Your task to perform on an android device: toggle sleep mode Image 0: 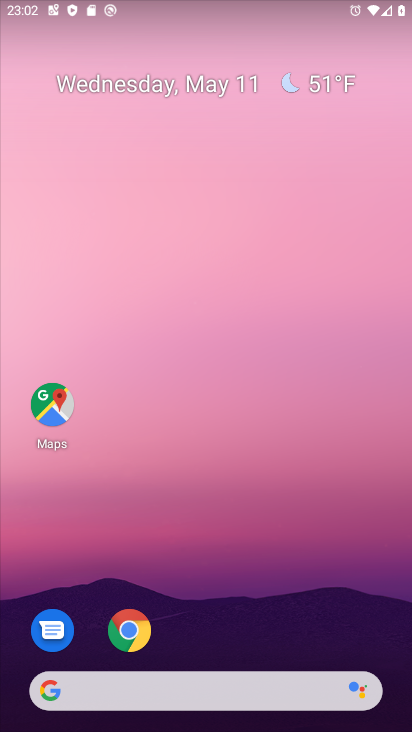
Step 0: drag from (207, 691) to (210, 129)
Your task to perform on an android device: toggle sleep mode Image 1: 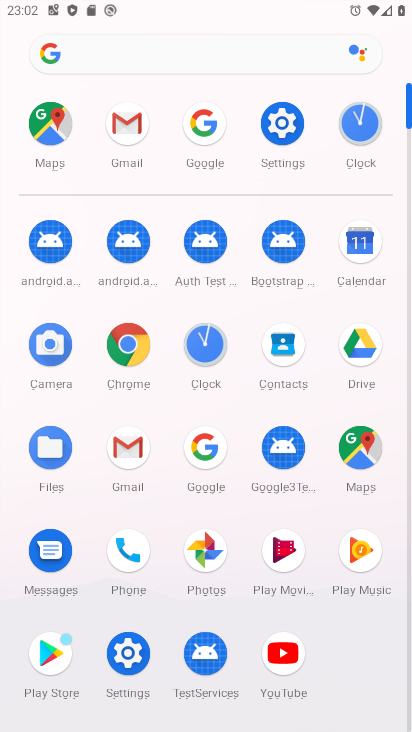
Step 1: click (286, 130)
Your task to perform on an android device: toggle sleep mode Image 2: 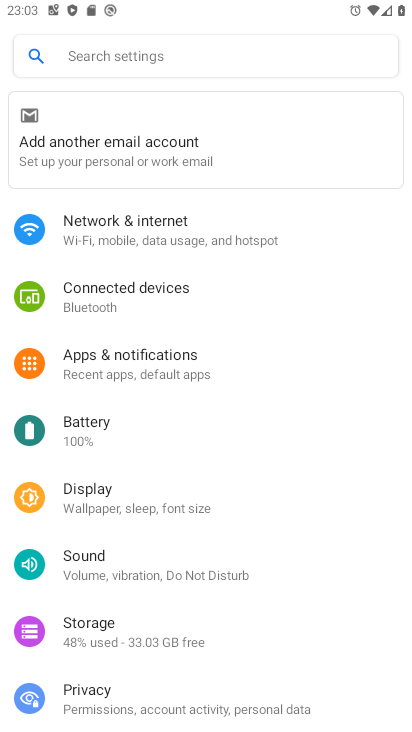
Step 2: drag from (156, 617) to (156, 191)
Your task to perform on an android device: toggle sleep mode Image 3: 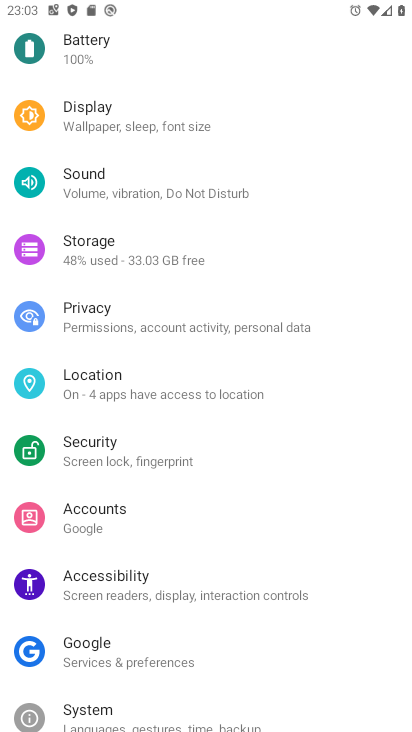
Step 3: click (126, 122)
Your task to perform on an android device: toggle sleep mode Image 4: 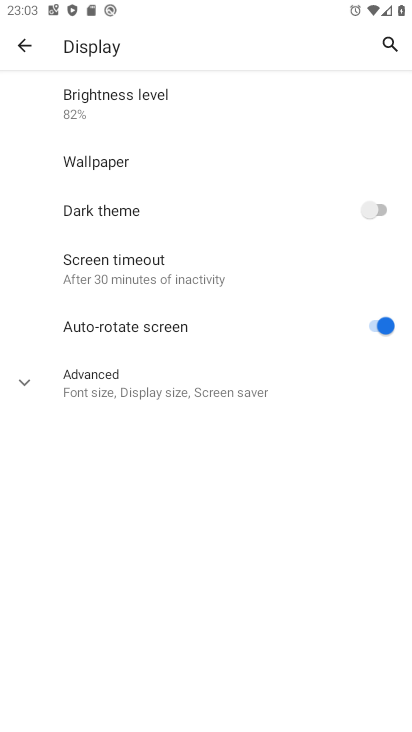
Step 4: task complete